Your task to perform on an android device: turn off javascript in the chrome app Image 0: 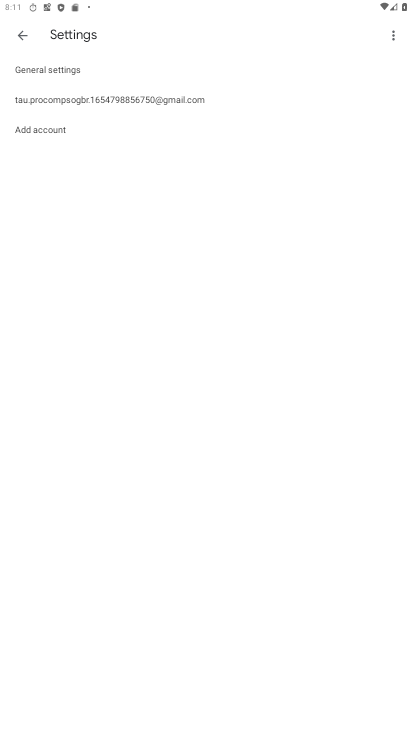
Step 0: press home button
Your task to perform on an android device: turn off javascript in the chrome app Image 1: 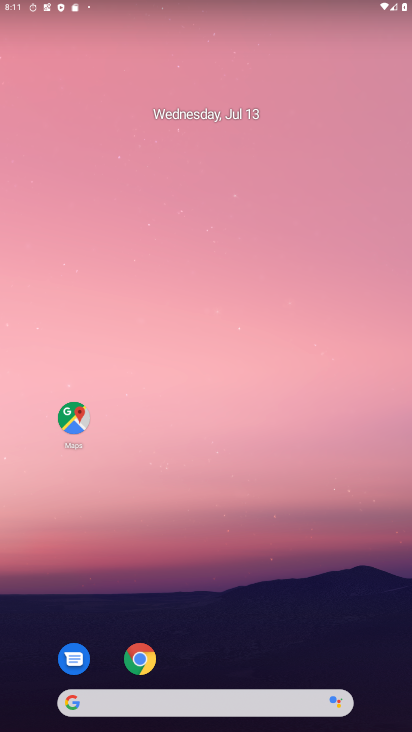
Step 1: click (140, 658)
Your task to perform on an android device: turn off javascript in the chrome app Image 2: 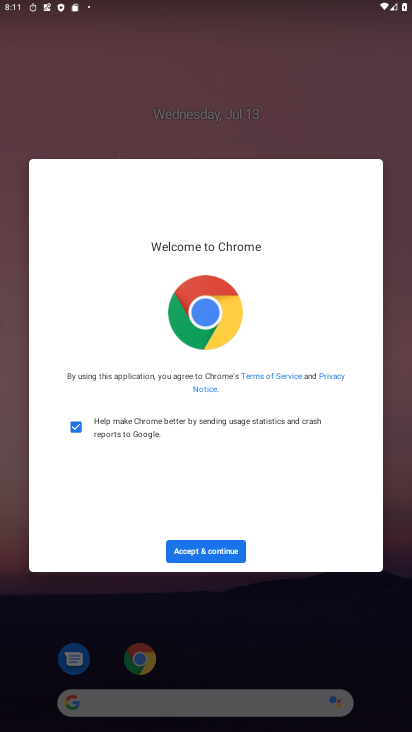
Step 2: click (201, 549)
Your task to perform on an android device: turn off javascript in the chrome app Image 3: 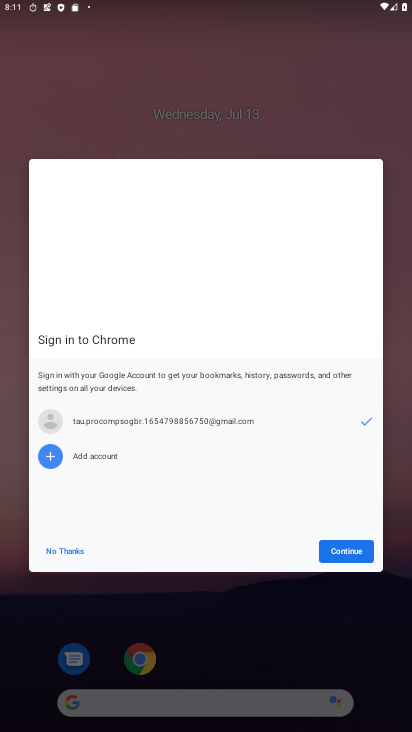
Step 3: click (352, 552)
Your task to perform on an android device: turn off javascript in the chrome app Image 4: 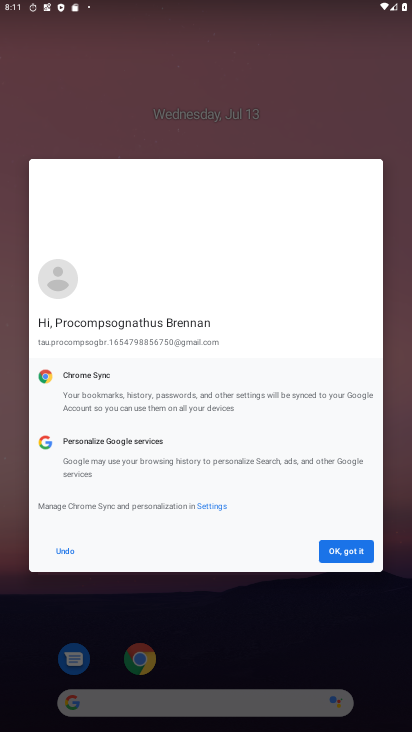
Step 4: click (351, 545)
Your task to perform on an android device: turn off javascript in the chrome app Image 5: 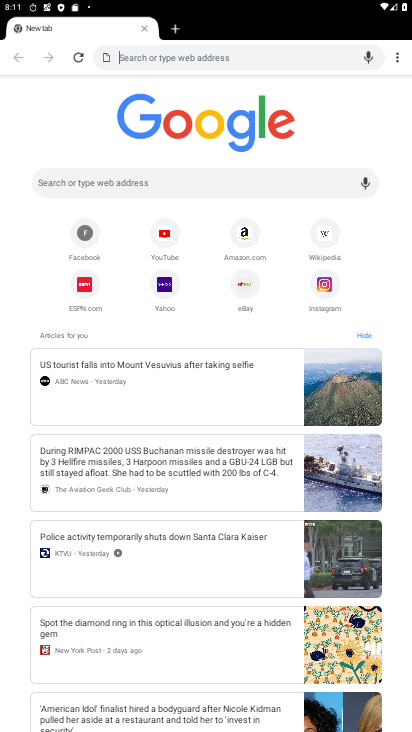
Step 5: click (397, 68)
Your task to perform on an android device: turn off javascript in the chrome app Image 6: 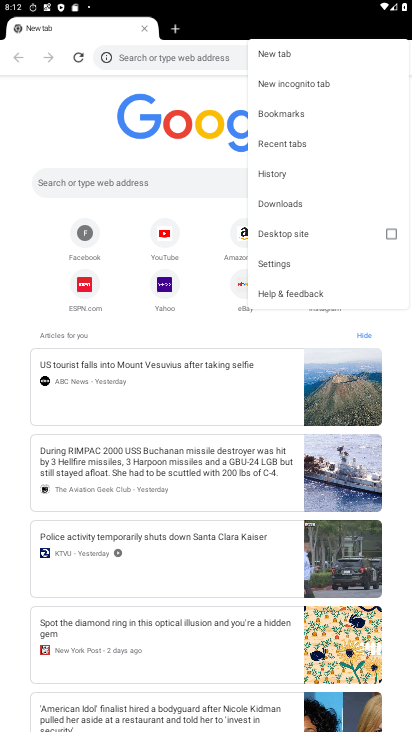
Step 6: click (310, 273)
Your task to perform on an android device: turn off javascript in the chrome app Image 7: 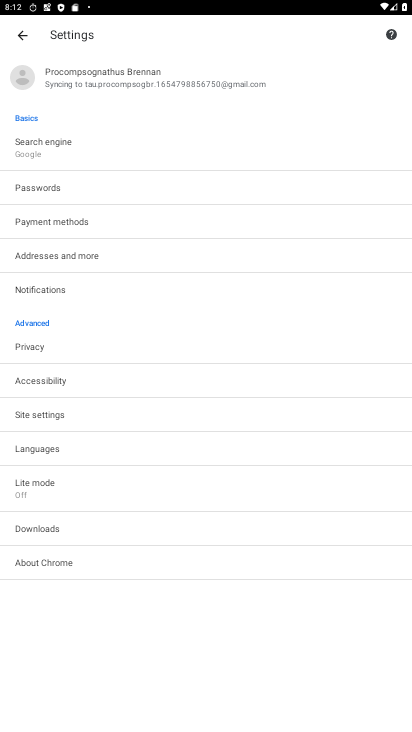
Step 7: click (60, 410)
Your task to perform on an android device: turn off javascript in the chrome app Image 8: 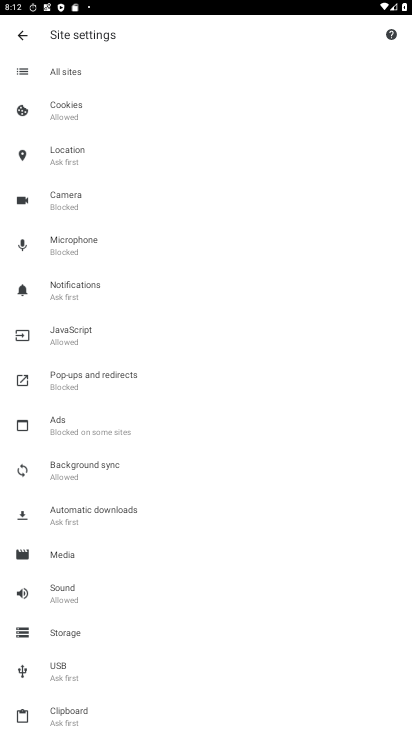
Step 8: click (70, 328)
Your task to perform on an android device: turn off javascript in the chrome app Image 9: 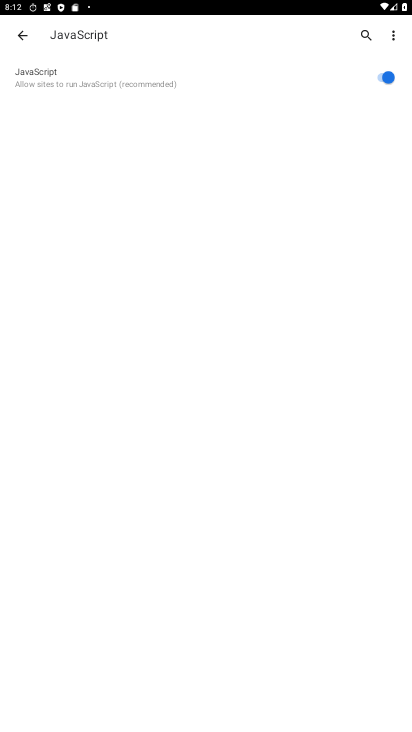
Step 9: click (380, 80)
Your task to perform on an android device: turn off javascript in the chrome app Image 10: 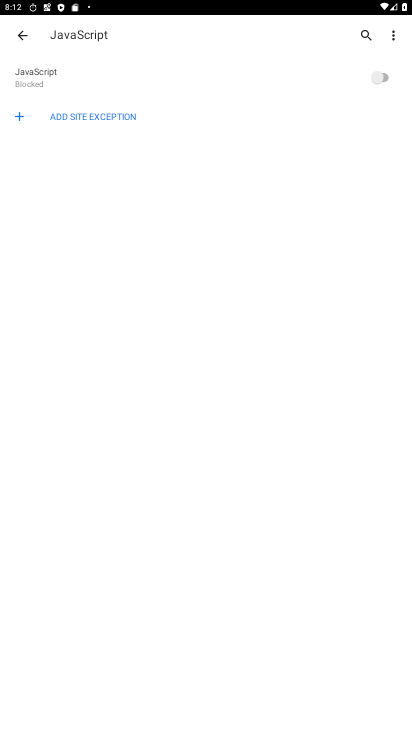
Step 10: task complete